Your task to perform on an android device: allow notifications from all sites in the chrome app Image 0: 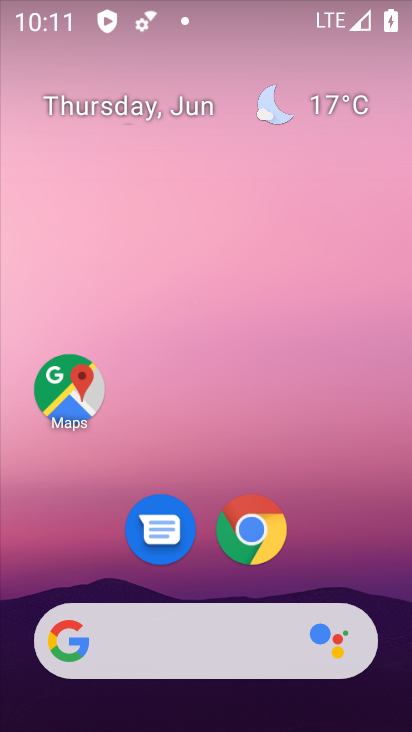
Step 0: click (255, 530)
Your task to perform on an android device: allow notifications from all sites in the chrome app Image 1: 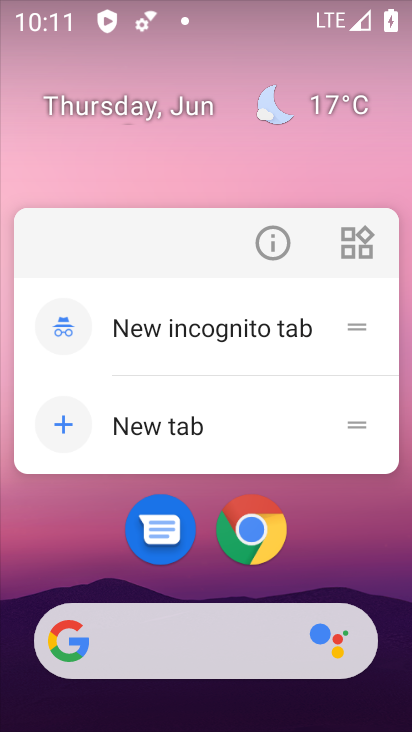
Step 1: click (266, 536)
Your task to perform on an android device: allow notifications from all sites in the chrome app Image 2: 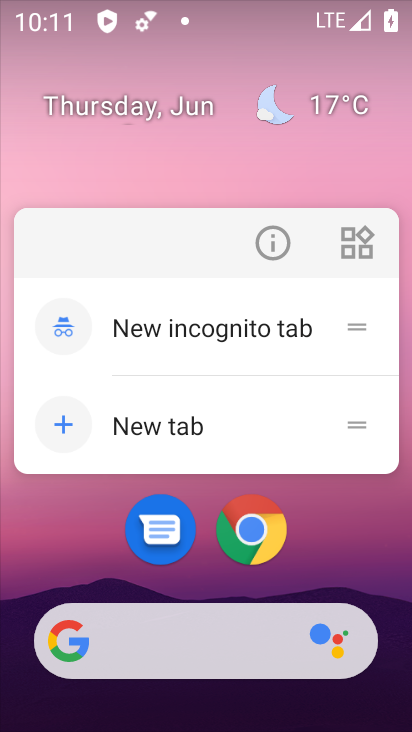
Step 2: click (266, 536)
Your task to perform on an android device: allow notifications from all sites in the chrome app Image 3: 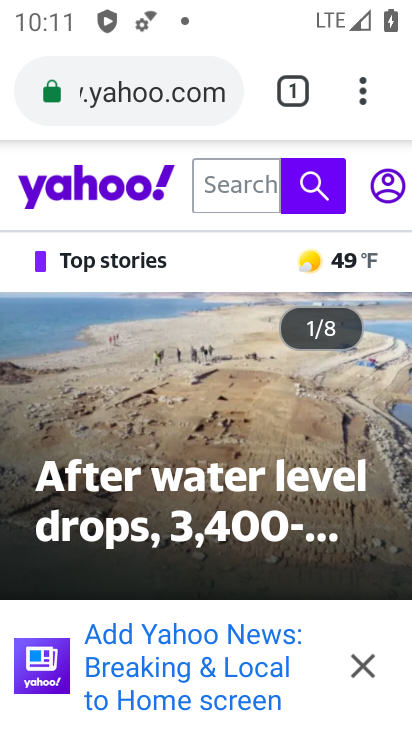
Step 3: click (358, 94)
Your task to perform on an android device: allow notifications from all sites in the chrome app Image 4: 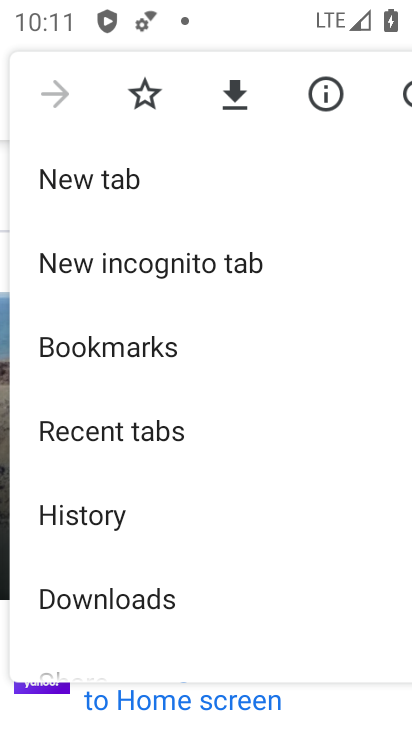
Step 4: drag from (133, 552) to (73, 111)
Your task to perform on an android device: allow notifications from all sites in the chrome app Image 5: 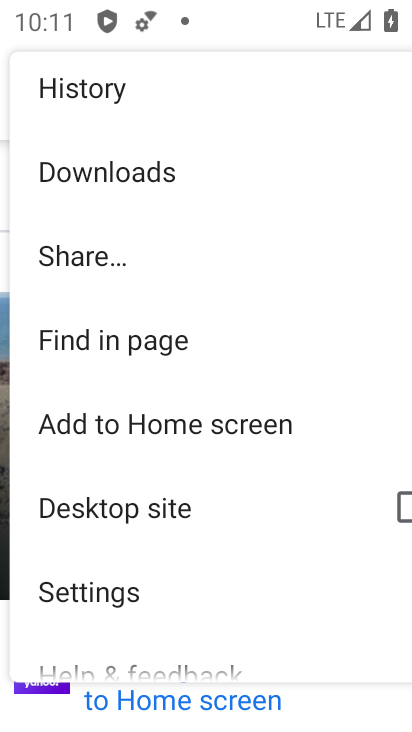
Step 5: click (159, 567)
Your task to perform on an android device: allow notifications from all sites in the chrome app Image 6: 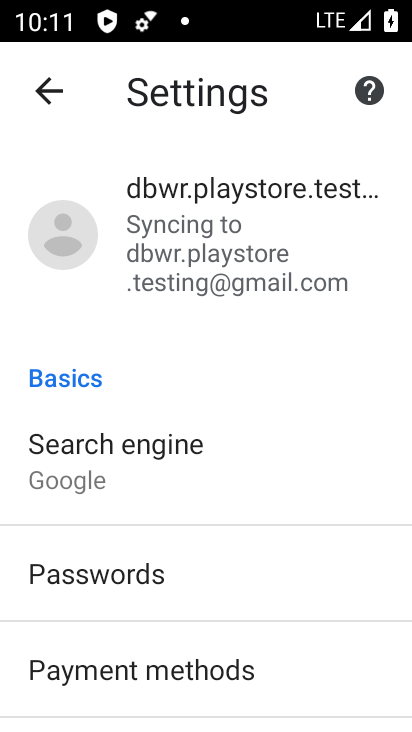
Step 6: drag from (182, 629) to (178, 158)
Your task to perform on an android device: allow notifications from all sites in the chrome app Image 7: 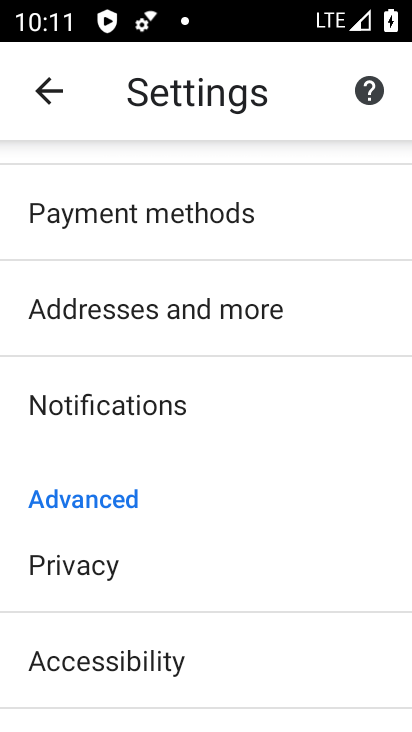
Step 7: click (133, 396)
Your task to perform on an android device: allow notifications from all sites in the chrome app Image 8: 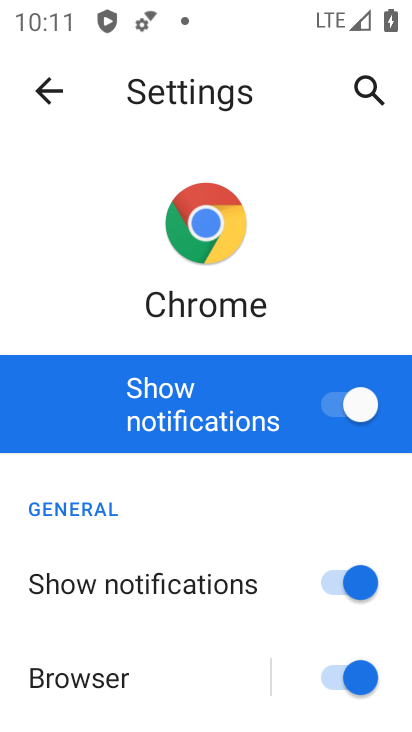
Step 8: task complete